Your task to perform on an android device: Open settings Image 0: 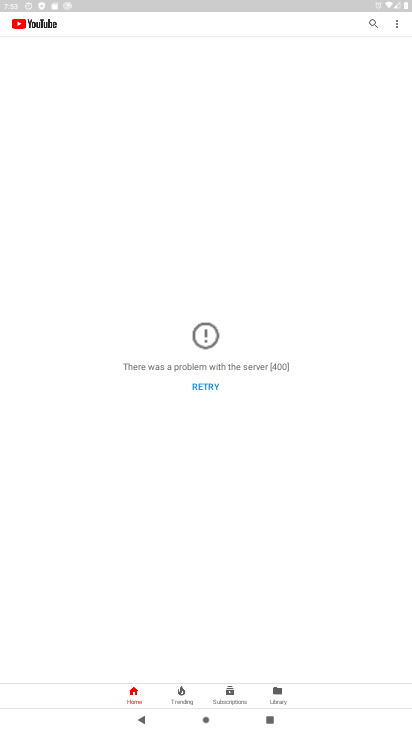
Step 0: press home button
Your task to perform on an android device: Open settings Image 1: 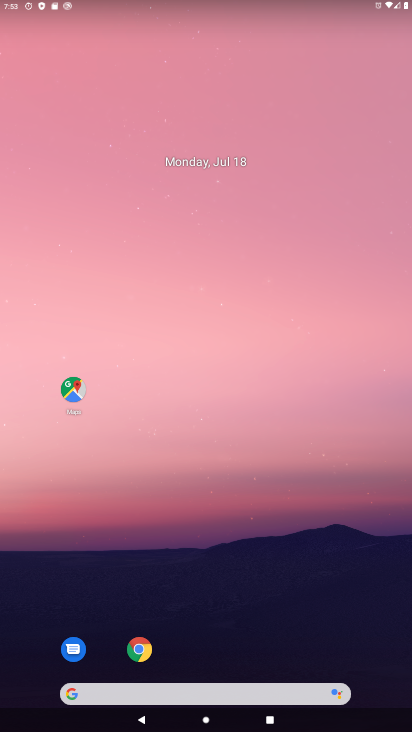
Step 1: drag from (184, 83) to (167, 0)
Your task to perform on an android device: Open settings Image 2: 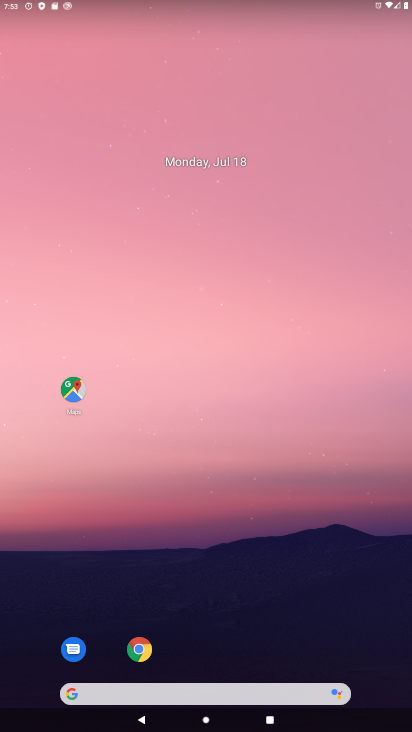
Step 2: drag from (221, 632) to (176, 83)
Your task to perform on an android device: Open settings Image 3: 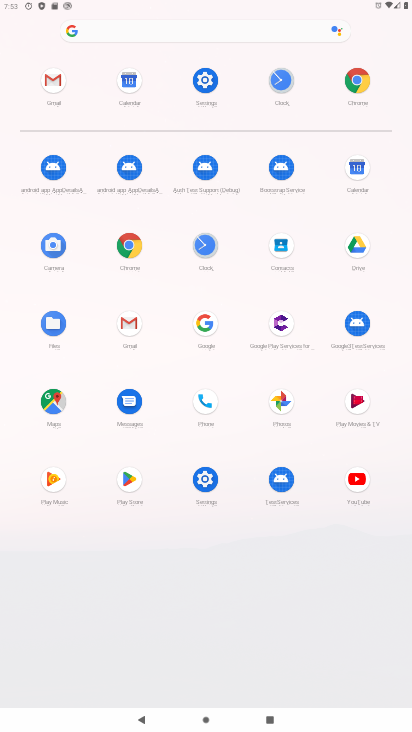
Step 3: click (207, 78)
Your task to perform on an android device: Open settings Image 4: 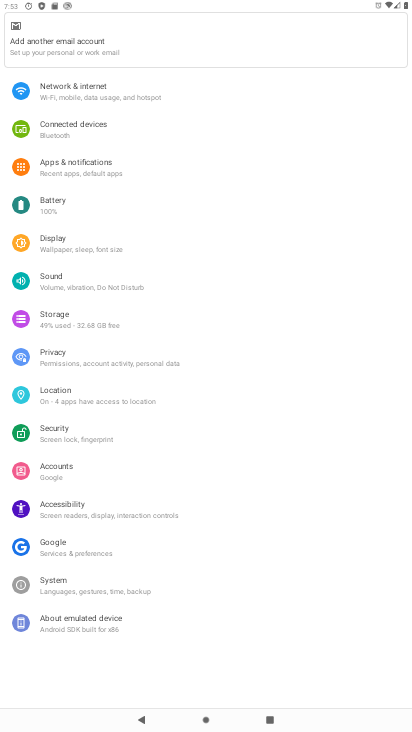
Step 4: task complete